Your task to perform on an android device: Open Google Chrome Image 0: 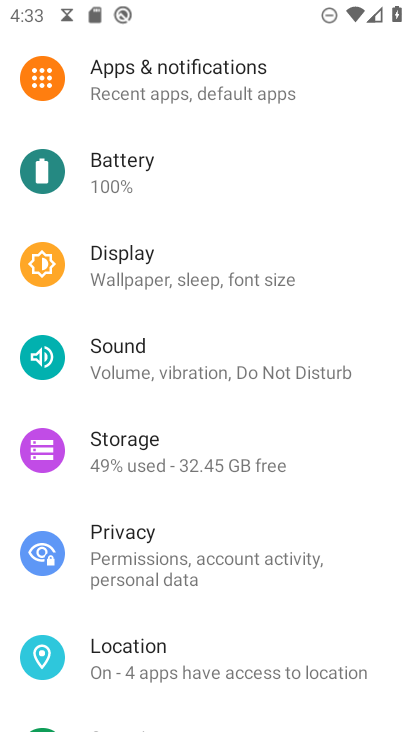
Step 0: press home button
Your task to perform on an android device: Open Google Chrome Image 1: 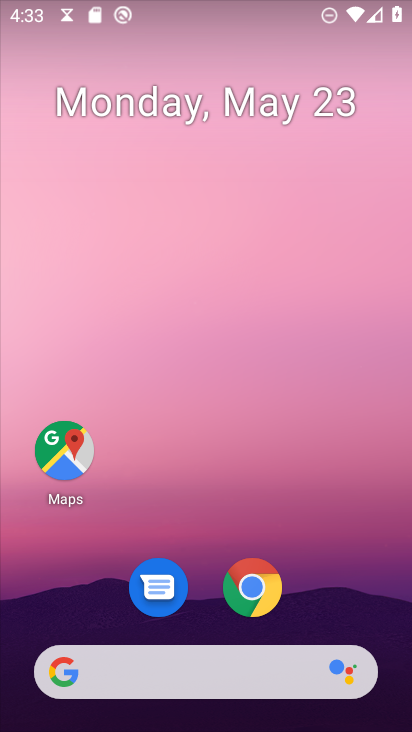
Step 1: drag from (191, 609) to (180, 74)
Your task to perform on an android device: Open Google Chrome Image 2: 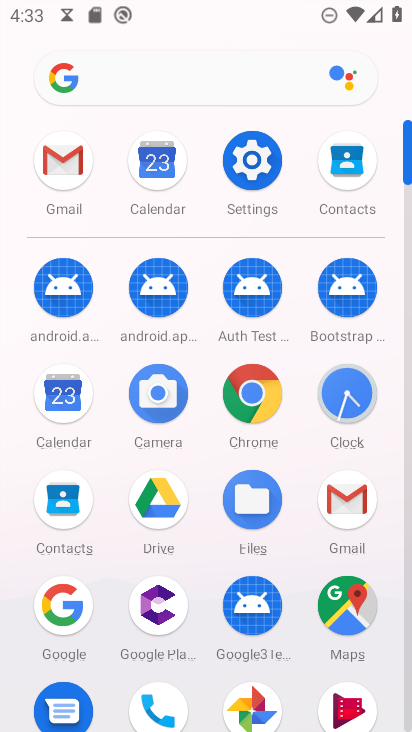
Step 2: click (256, 400)
Your task to perform on an android device: Open Google Chrome Image 3: 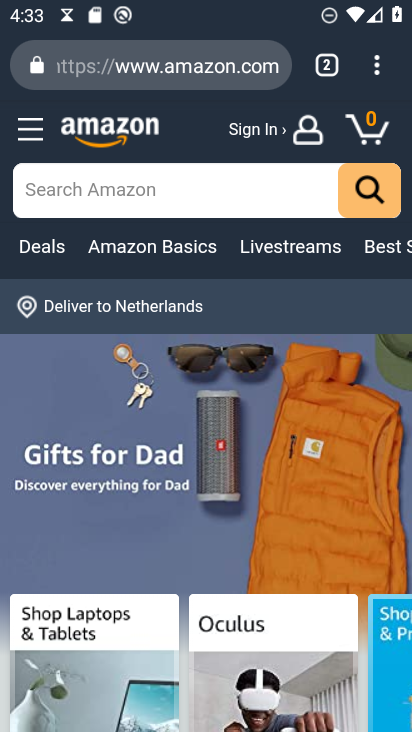
Step 3: task complete